Your task to perform on an android device: turn vacation reply on in the gmail app Image 0: 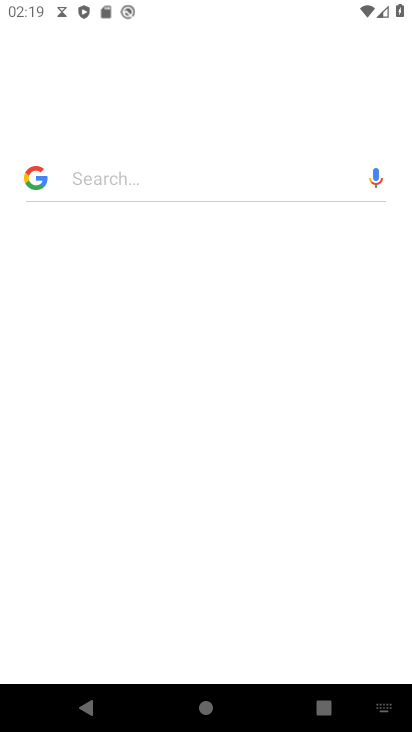
Step 0: press home button
Your task to perform on an android device: turn vacation reply on in the gmail app Image 1: 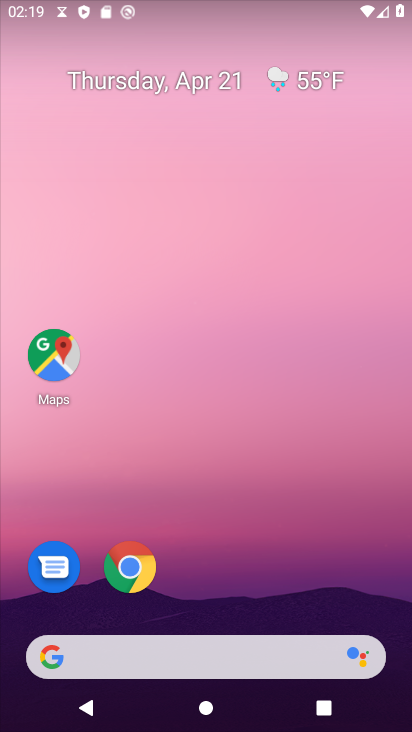
Step 1: drag from (174, 648) to (230, 113)
Your task to perform on an android device: turn vacation reply on in the gmail app Image 2: 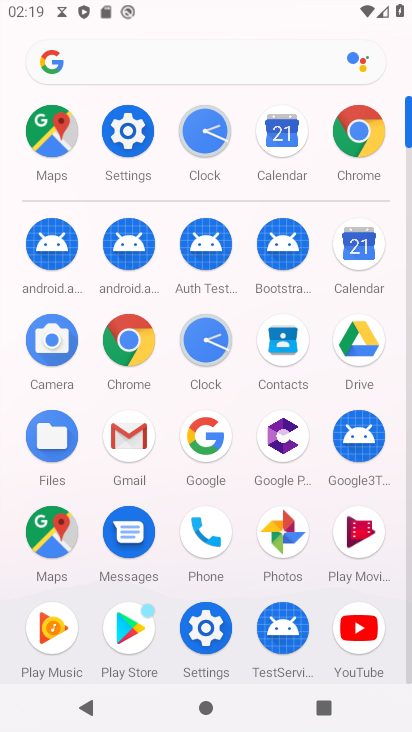
Step 2: click (132, 434)
Your task to perform on an android device: turn vacation reply on in the gmail app Image 3: 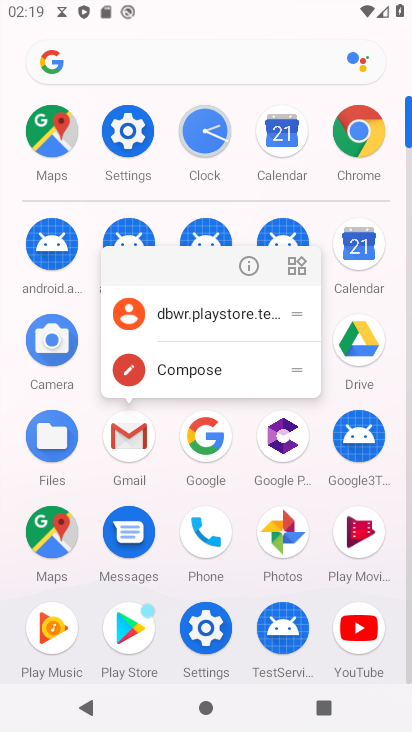
Step 3: click (122, 451)
Your task to perform on an android device: turn vacation reply on in the gmail app Image 4: 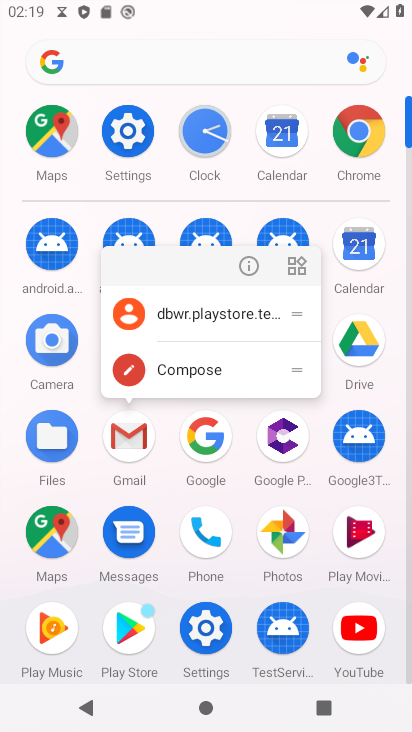
Step 4: click (127, 440)
Your task to perform on an android device: turn vacation reply on in the gmail app Image 5: 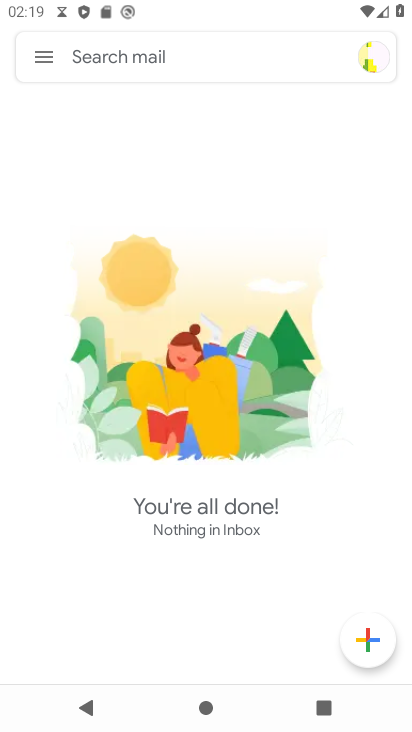
Step 5: click (43, 55)
Your task to perform on an android device: turn vacation reply on in the gmail app Image 6: 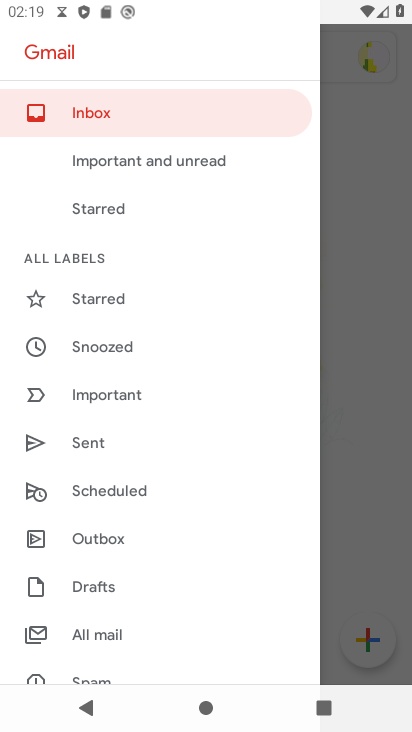
Step 6: drag from (169, 635) to (285, 224)
Your task to perform on an android device: turn vacation reply on in the gmail app Image 7: 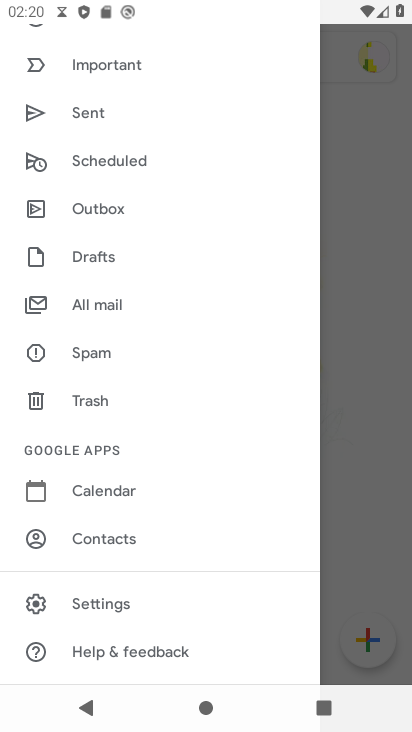
Step 7: click (111, 604)
Your task to perform on an android device: turn vacation reply on in the gmail app Image 8: 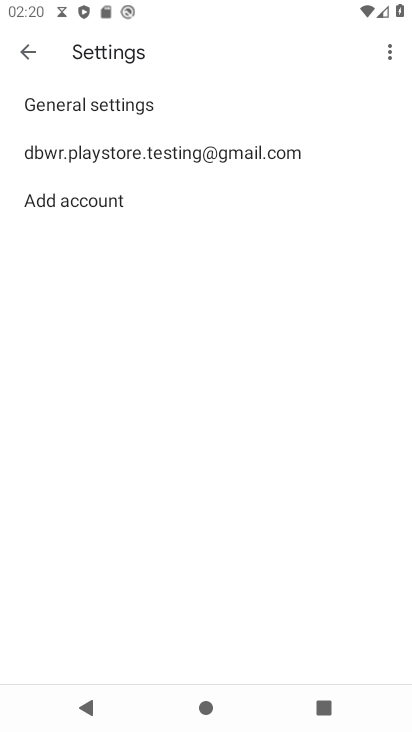
Step 8: click (130, 148)
Your task to perform on an android device: turn vacation reply on in the gmail app Image 9: 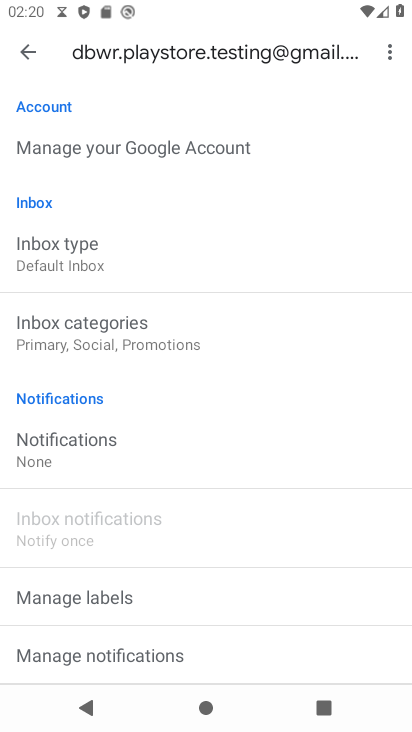
Step 9: drag from (177, 595) to (268, 235)
Your task to perform on an android device: turn vacation reply on in the gmail app Image 10: 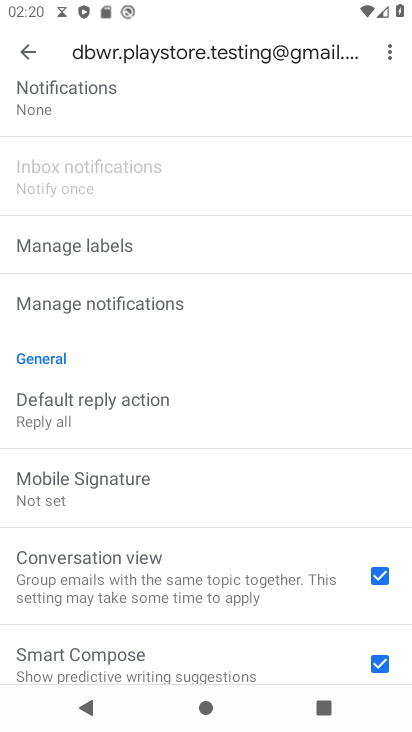
Step 10: drag from (161, 580) to (246, 181)
Your task to perform on an android device: turn vacation reply on in the gmail app Image 11: 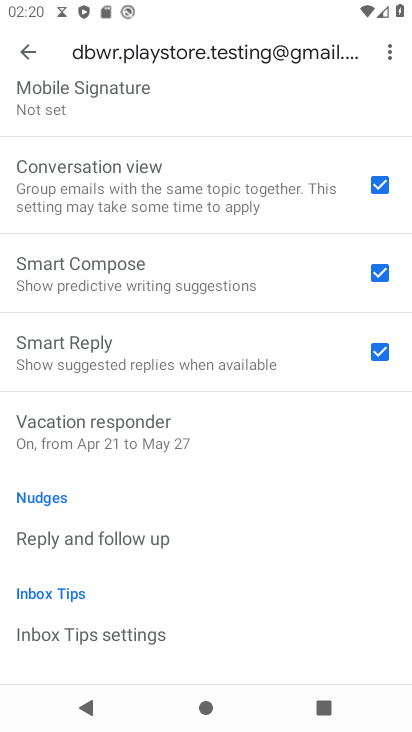
Step 11: click (127, 430)
Your task to perform on an android device: turn vacation reply on in the gmail app Image 12: 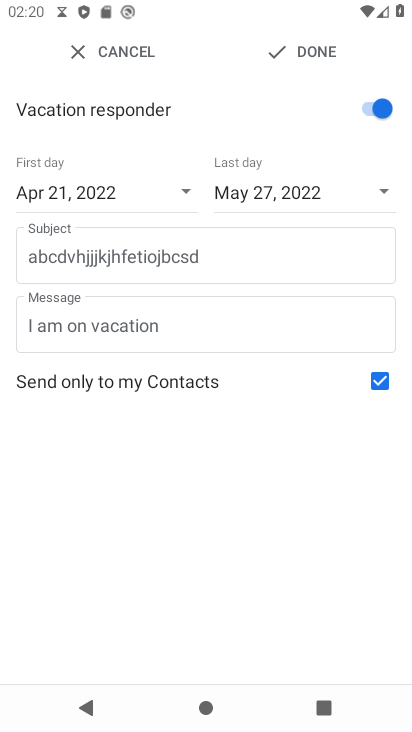
Step 12: task complete